Your task to perform on an android device: remove spam from my inbox in the gmail app Image 0: 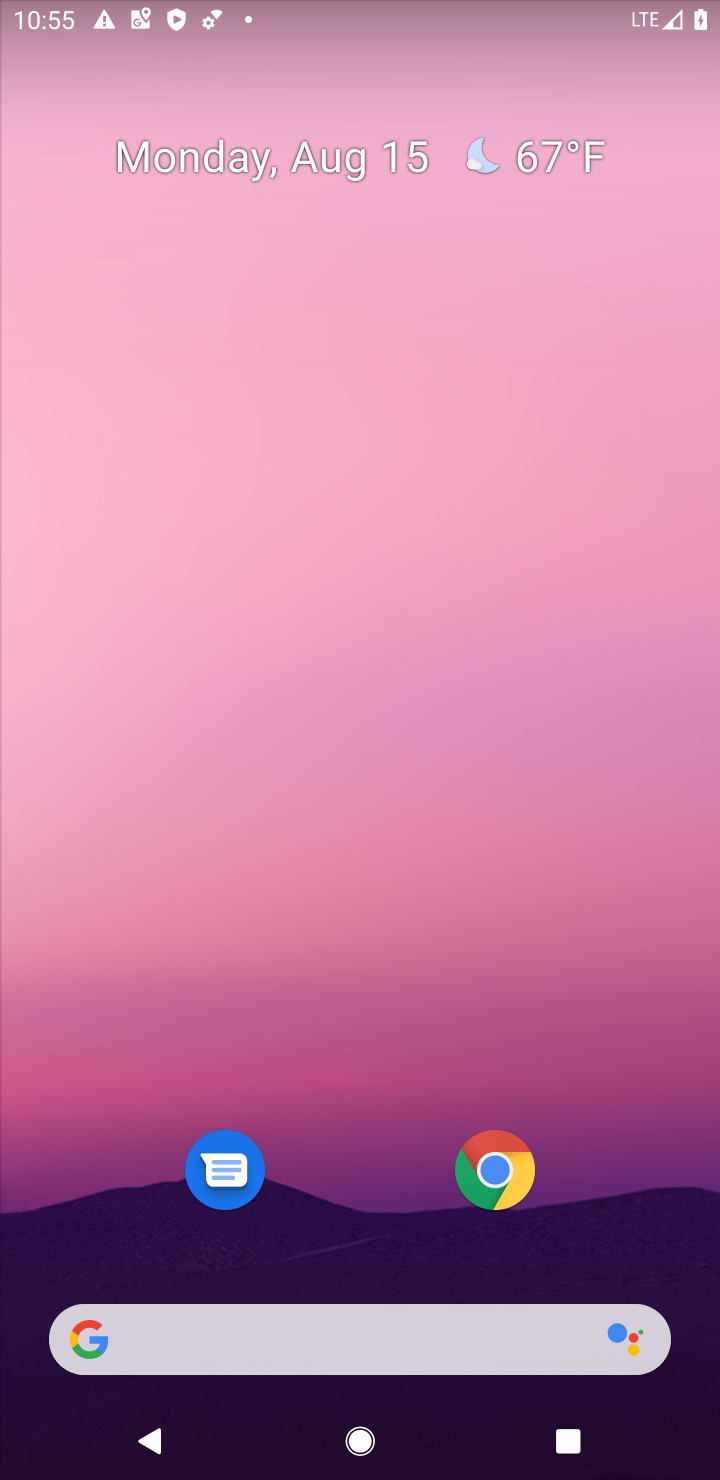
Step 0: press home button
Your task to perform on an android device: remove spam from my inbox in the gmail app Image 1: 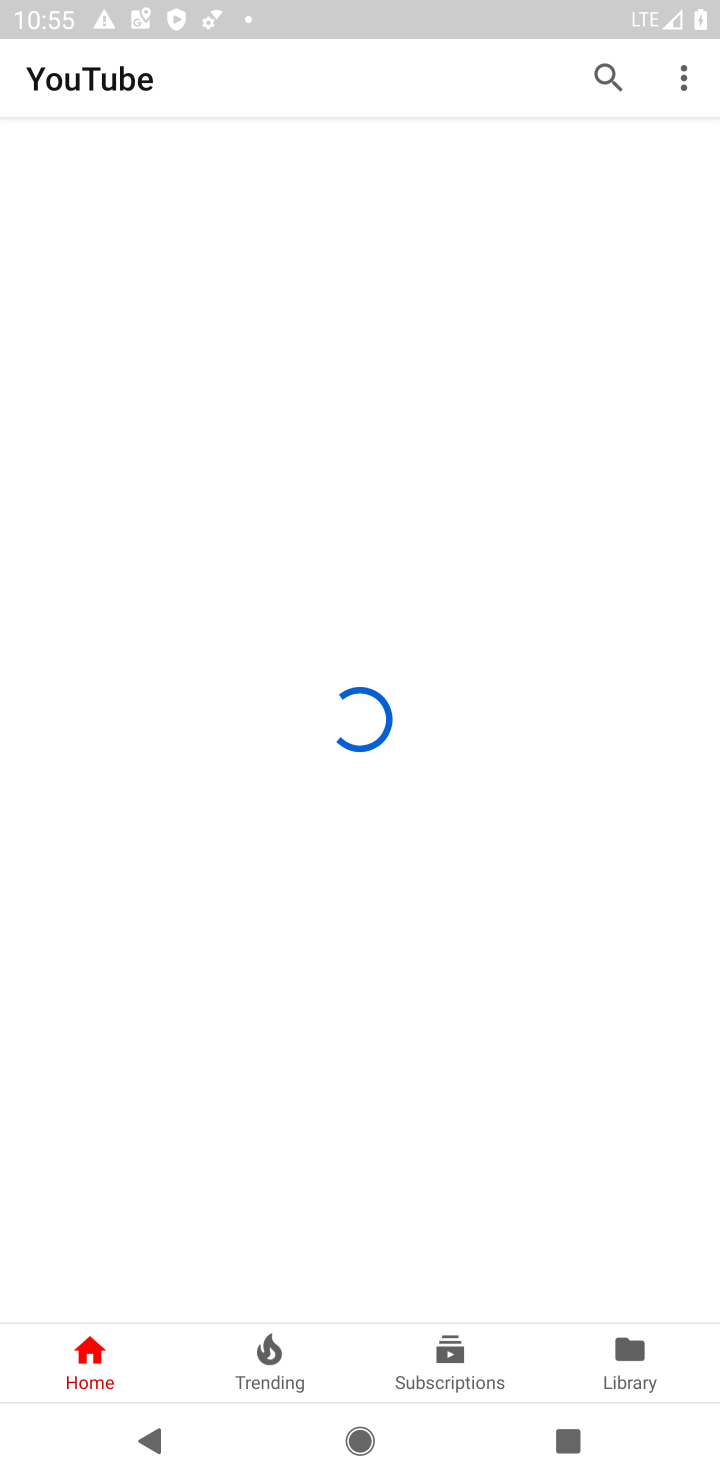
Step 1: click (463, 0)
Your task to perform on an android device: remove spam from my inbox in the gmail app Image 2: 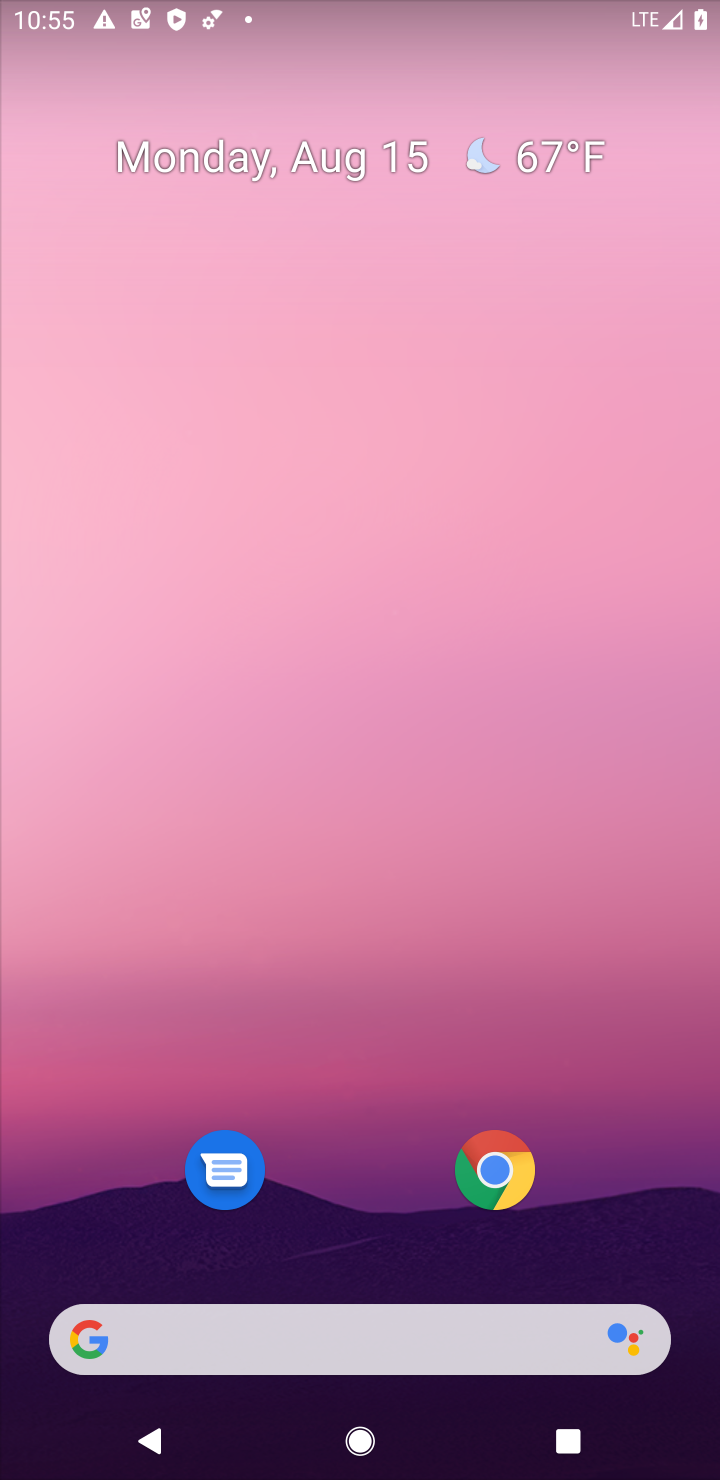
Step 2: drag from (404, 1243) to (420, 162)
Your task to perform on an android device: remove spam from my inbox in the gmail app Image 3: 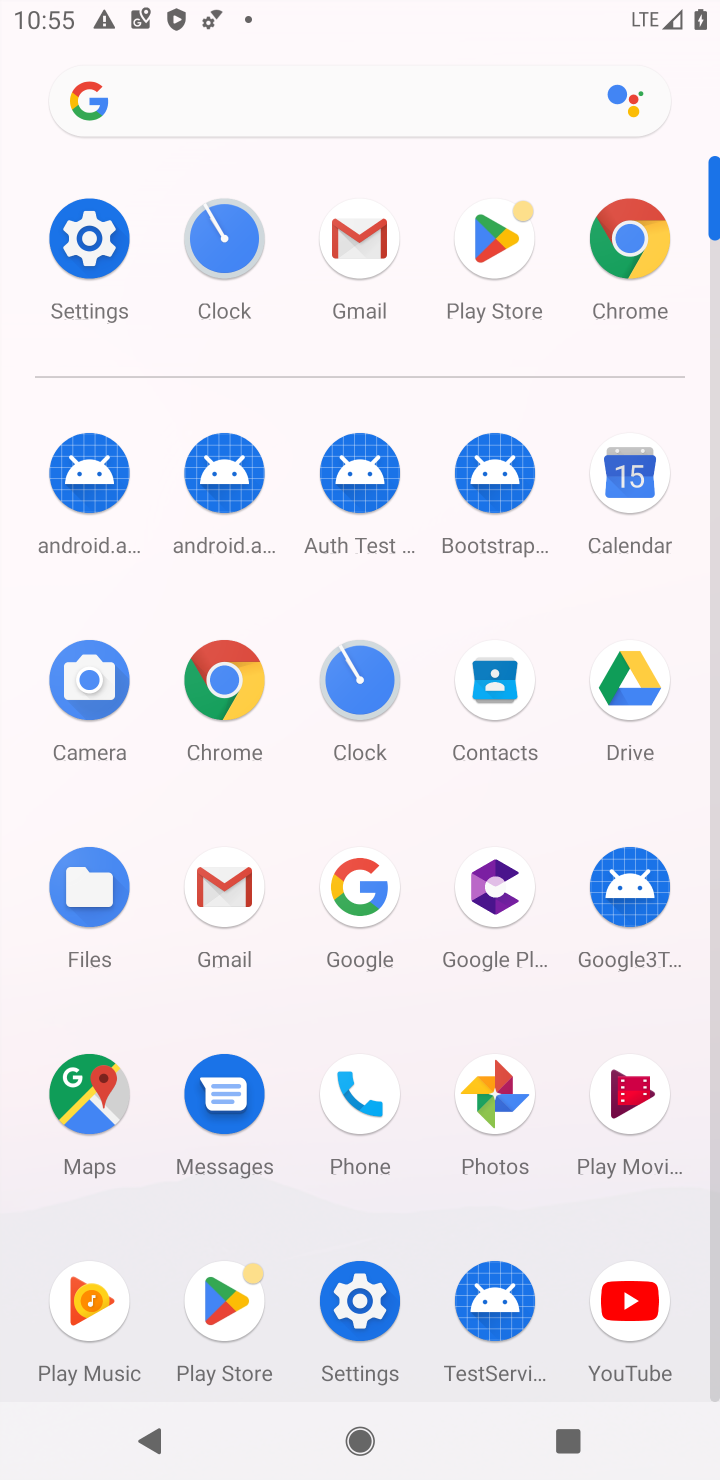
Step 3: click (353, 228)
Your task to perform on an android device: remove spam from my inbox in the gmail app Image 4: 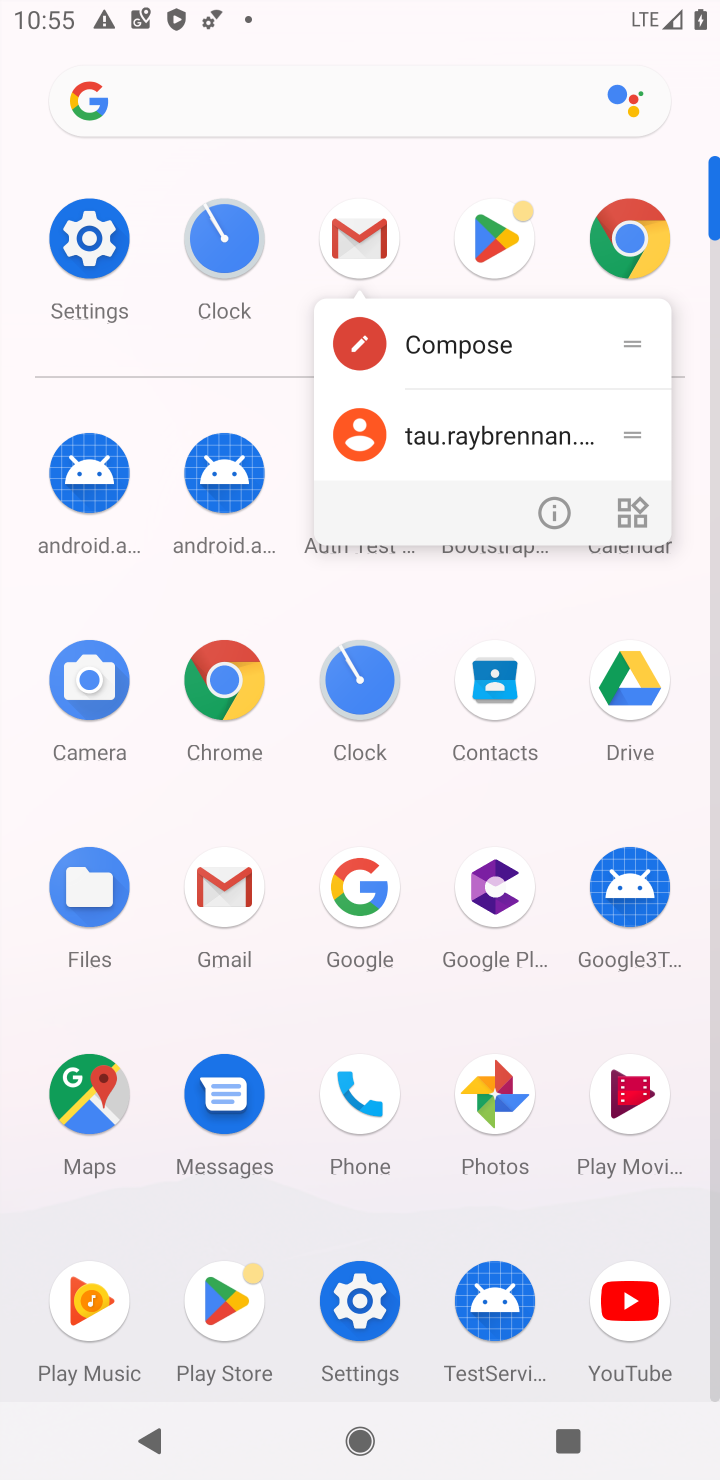
Step 4: click (353, 228)
Your task to perform on an android device: remove spam from my inbox in the gmail app Image 5: 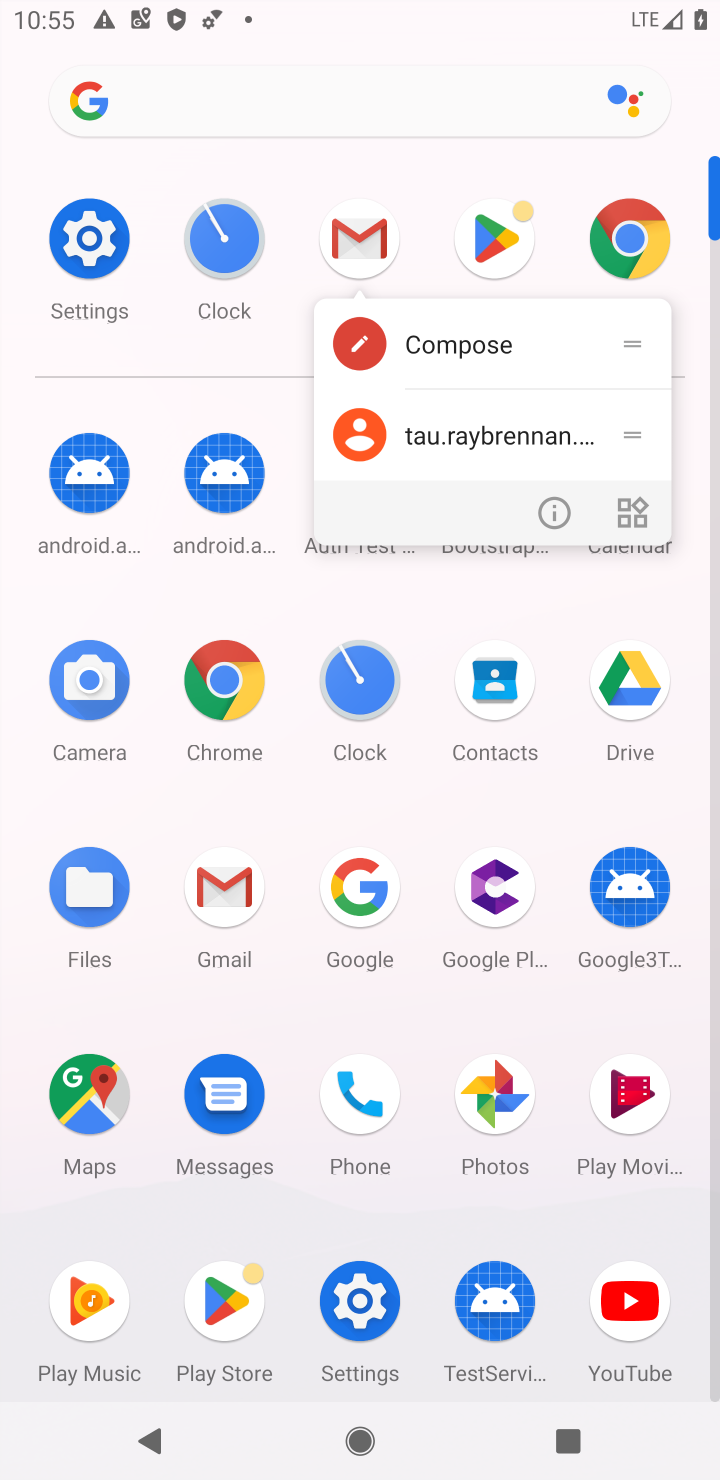
Step 5: click (353, 228)
Your task to perform on an android device: remove spam from my inbox in the gmail app Image 6: 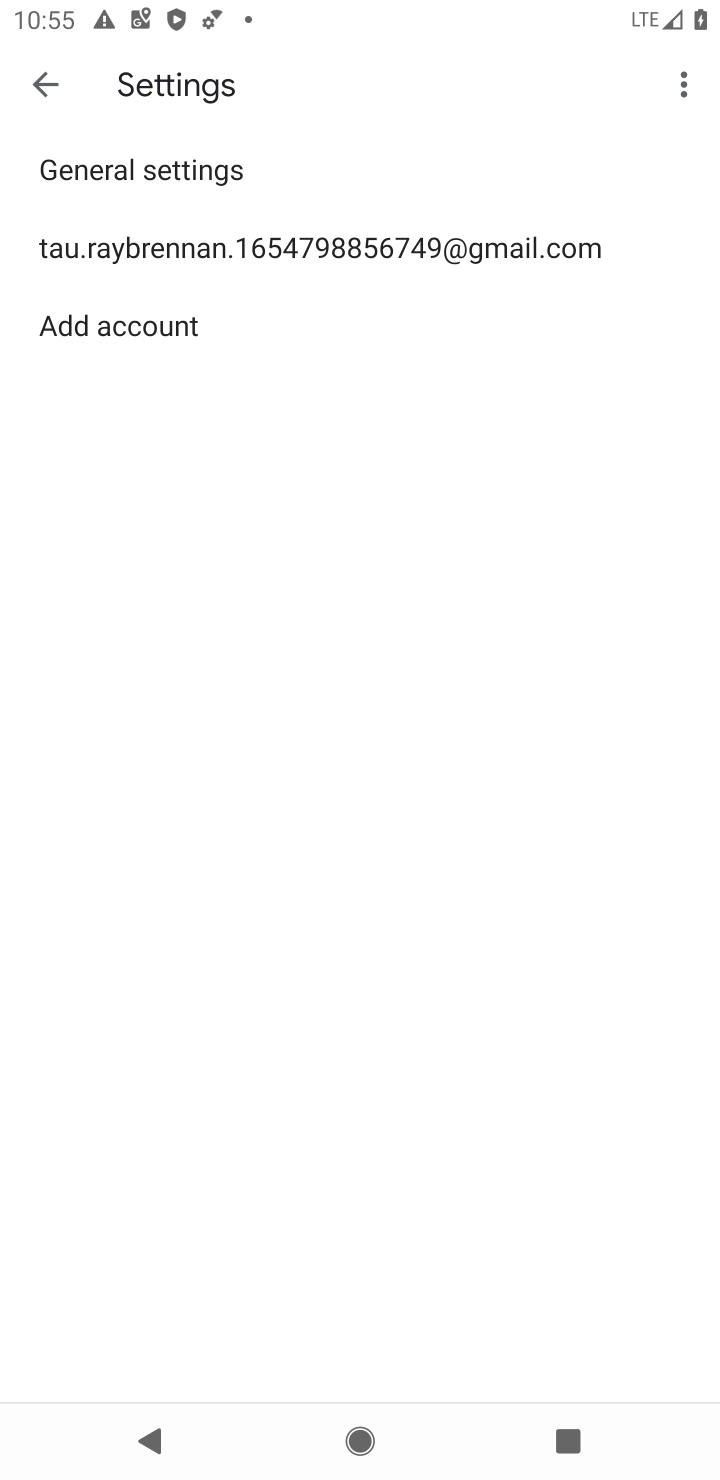
Step 6: click (18, 83)
Your task to perform on an android device: remove spam from my inbox in the gmail app Image 7: 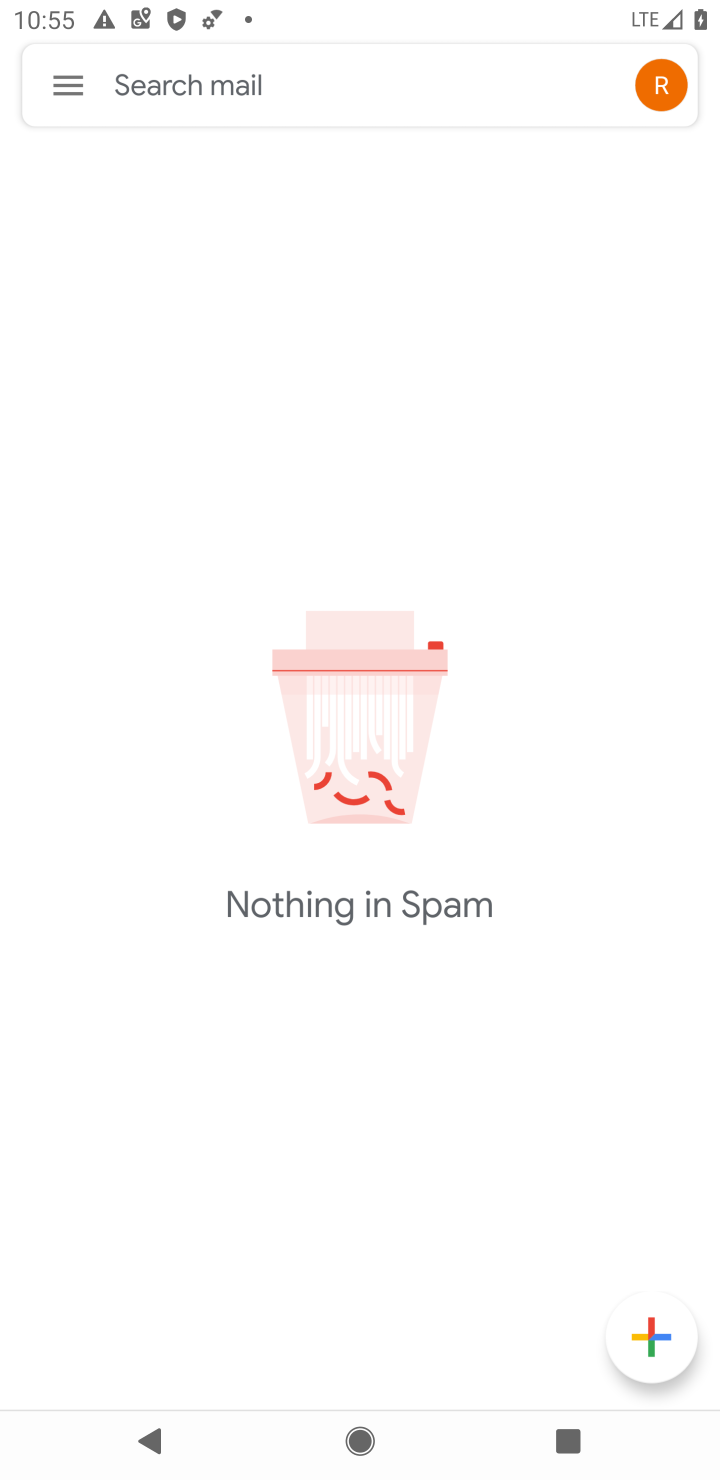
Step 7: click (33, 72)
Your task to perform on an android device: remove spam from my inbox in the gmail app Image 8: 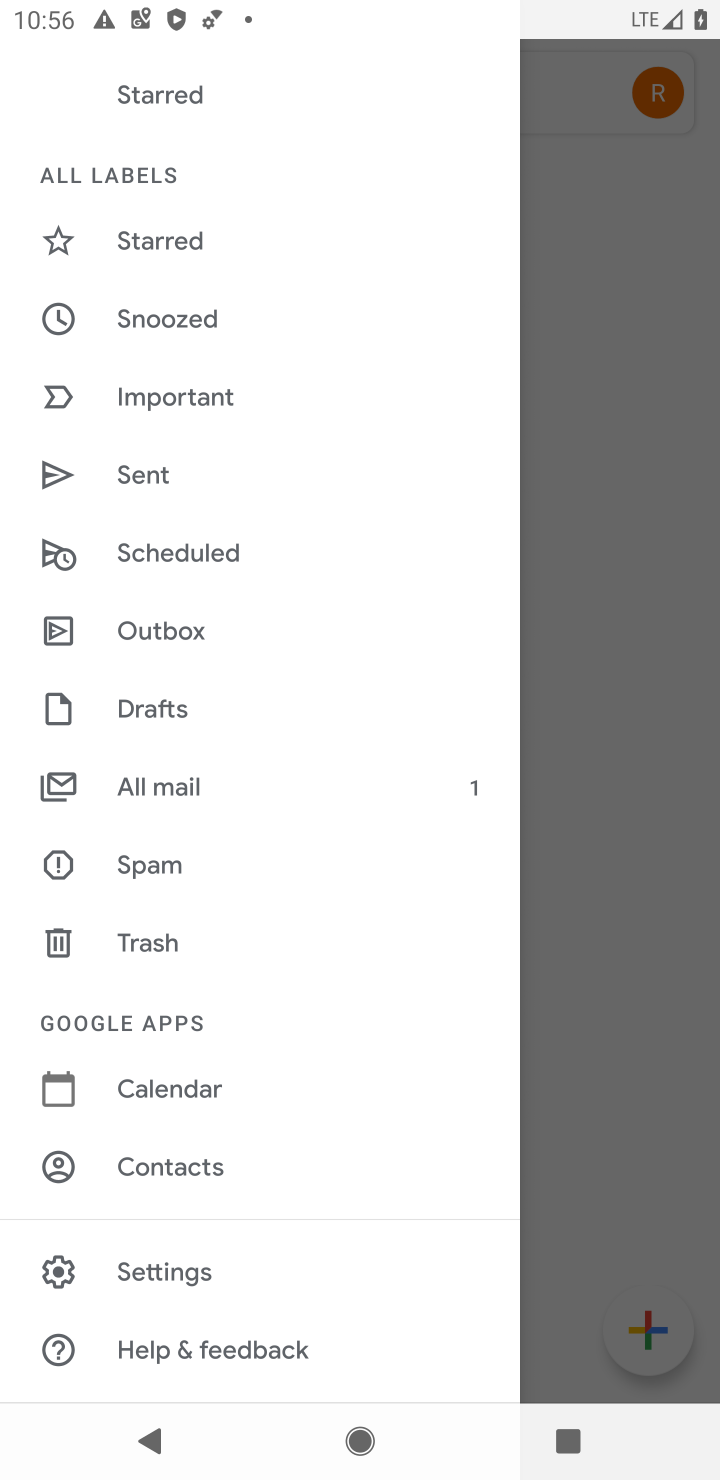
Step 8: click (52, 90)
Your task to perform on an android device: remove spam from my inbox in the gmail app Image 9: 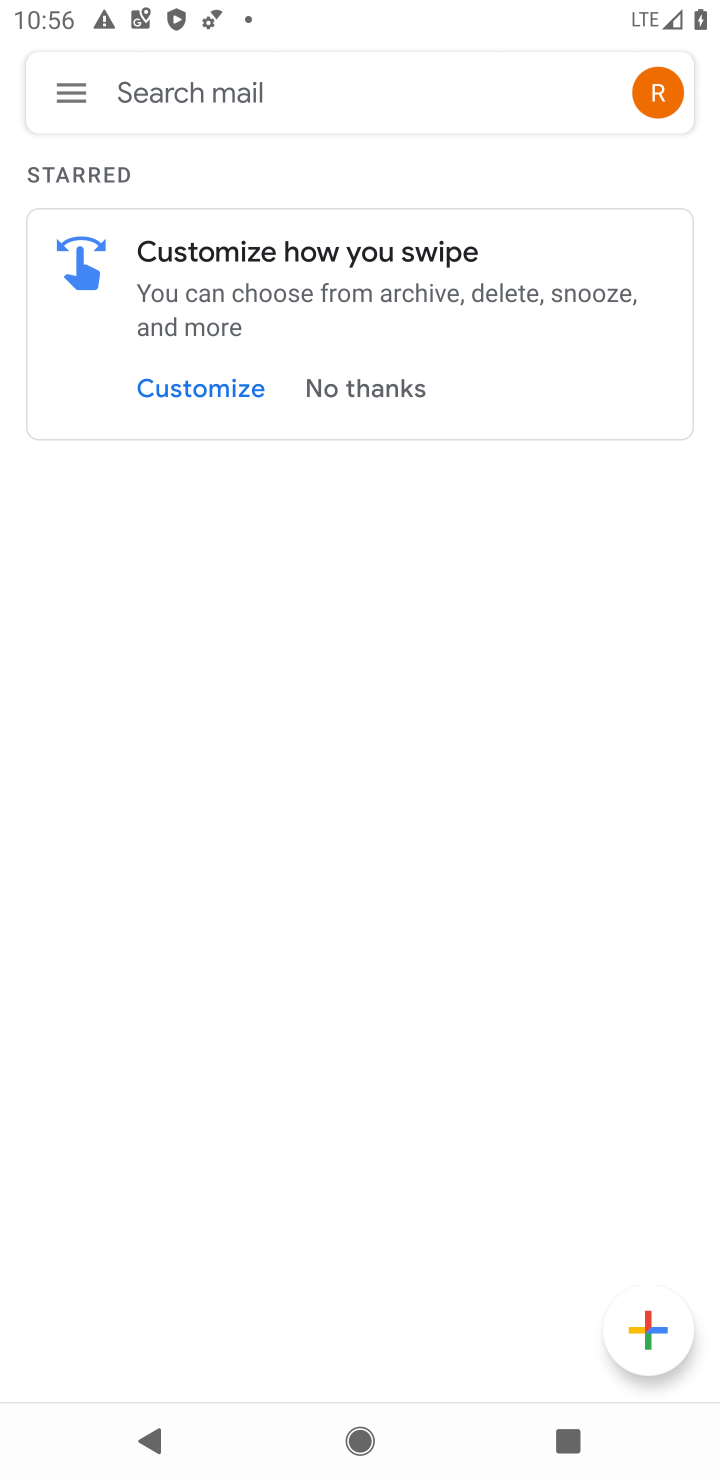
Step 9: click (73, 81)
Your task to perform on an android device: remove spam from my inbox in the gmail app Image 10: 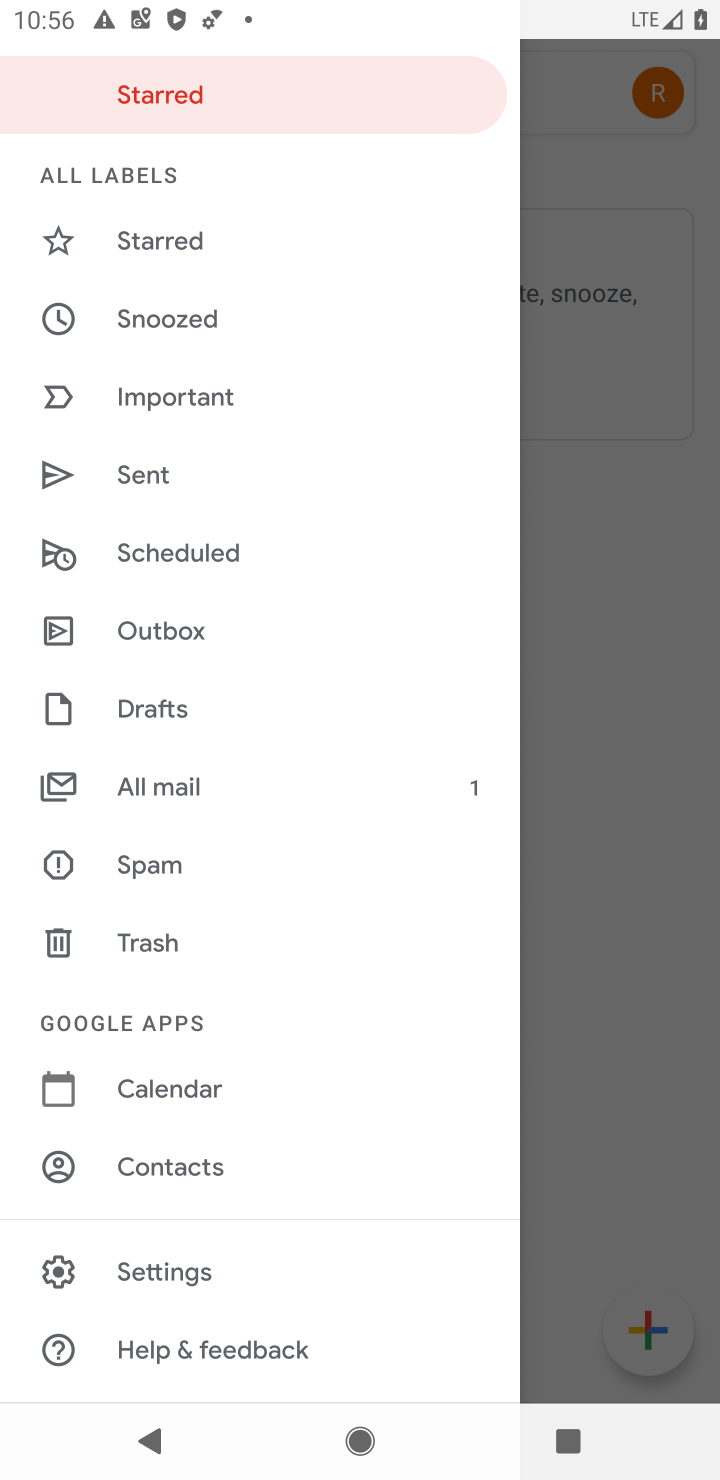
Step 10: click (138, 862)
Your task to perform on an android device: remove spam from my inbox in the gmail app Image 11: 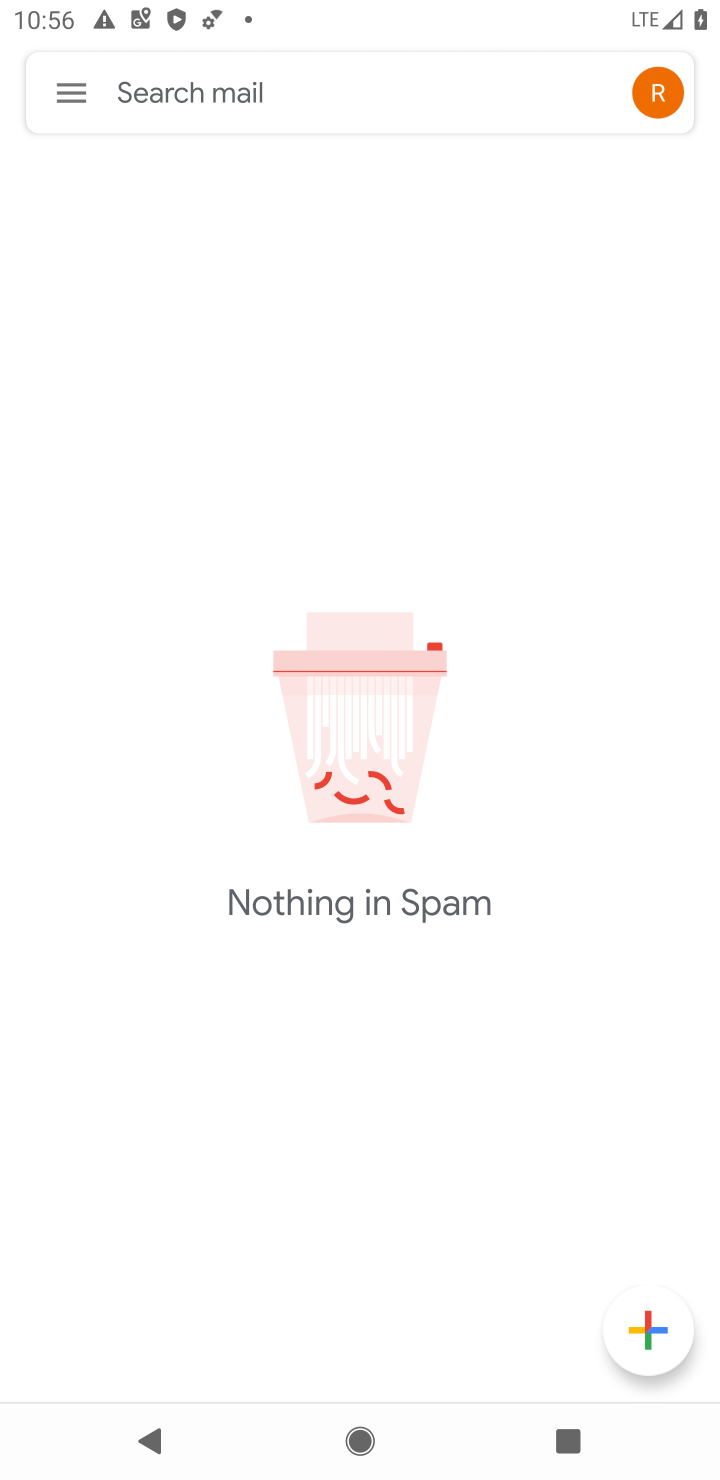
Step 11: task complete